Your task to perform on an android device: turn on the 24-hour format for clock Image 0: 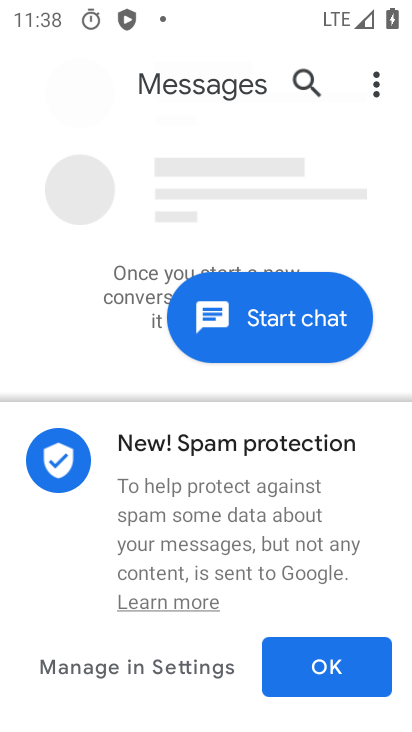
Step 0: press home button
Your task to perform on an android device: turn on the 24-hour format for clock Image 1: 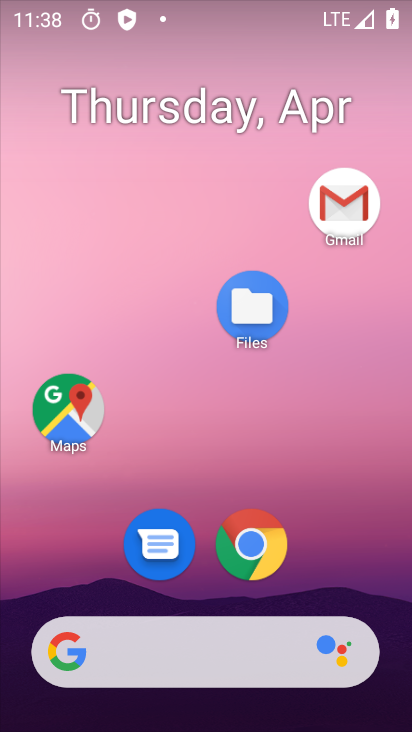
Step 1: drag from (248, 451) to (229, 118)
Your task to perform on an android device: turn on the 24-hour format for clock Image 2: 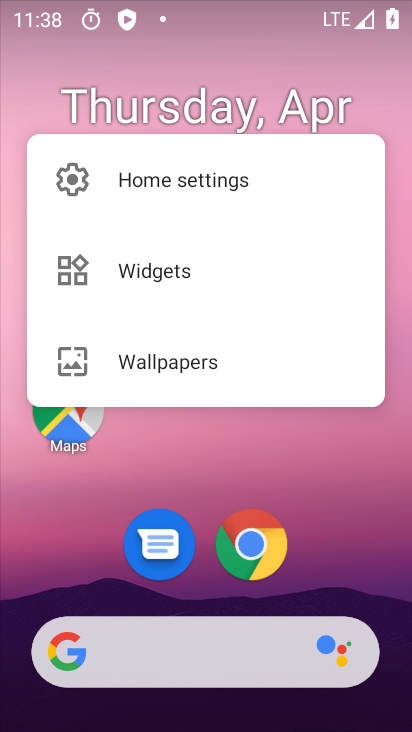
Step 2: drag from (206, 125) to (282, 470)
Your task to perform on an android device: turn on the 24-hour format for clock Image 3: 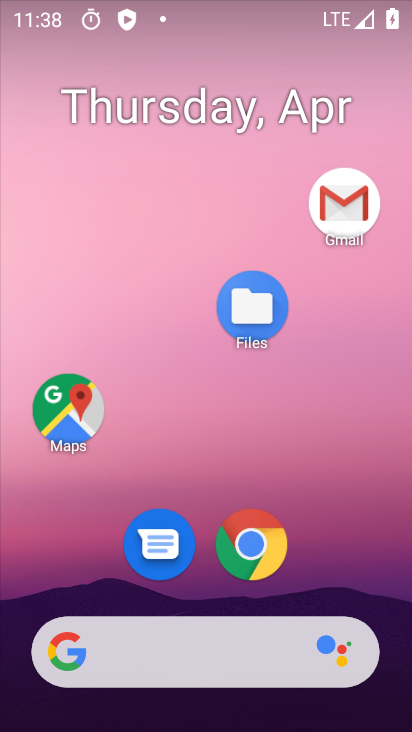
Step 3: drag from (201, 470) to (241, 63)
Your task to perform on an android device: turn on the 24-hour format for clock Image 4: 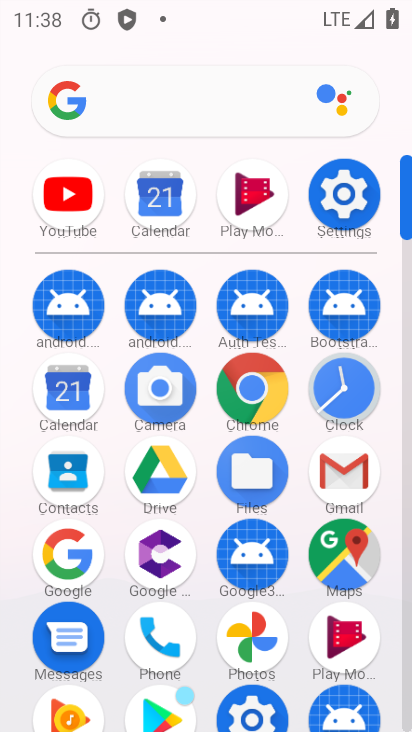
Step 4: click (357, 404)
Your task to perform on an android device: turn on the 24-hour format for clock Image 5: 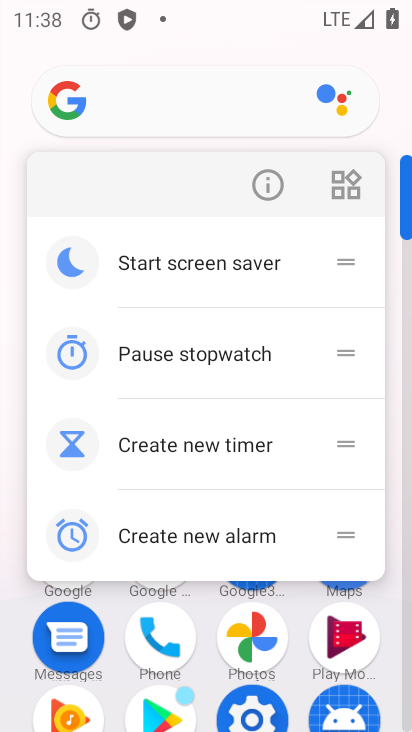
Step 5: click (280, 191)
Your task to perform on an android device: turn on the 24-hour format for clock Image 6: 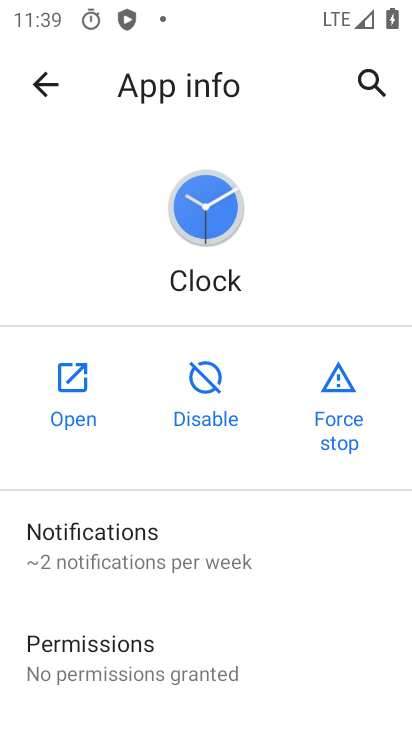
Step 6: click (59, 406)
Your task to perform on an android device: turn on the 24-hour format for clock Image 7: 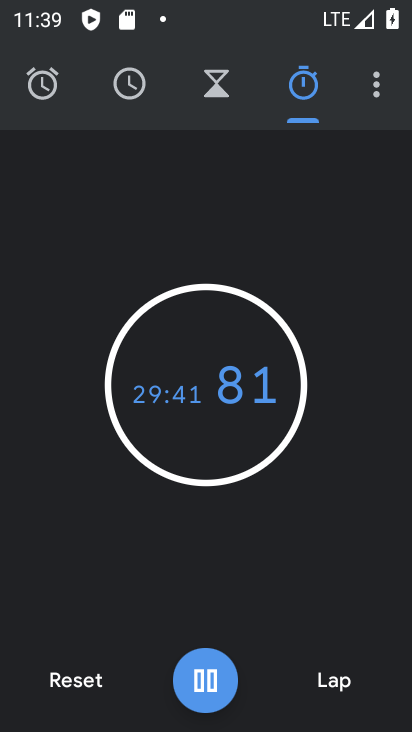
Step 7: click (370, 86)
Your task to perform on an android device: turn on the 24-hour format for clock Image 8: 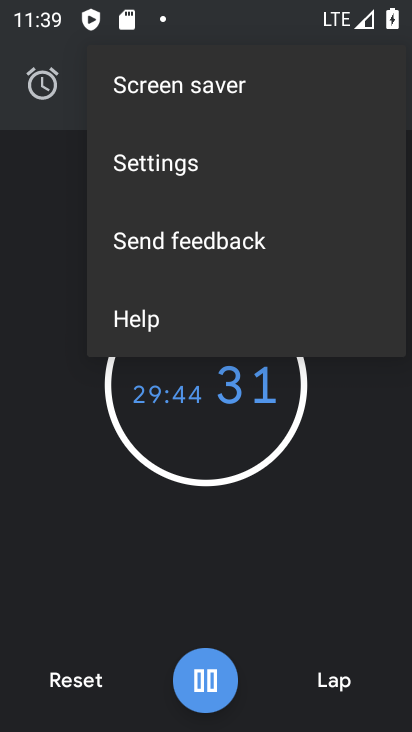
Step 8: click (197, 176)
Your task to perform on an android device: turn on the 24-hour format for clock Image 9: 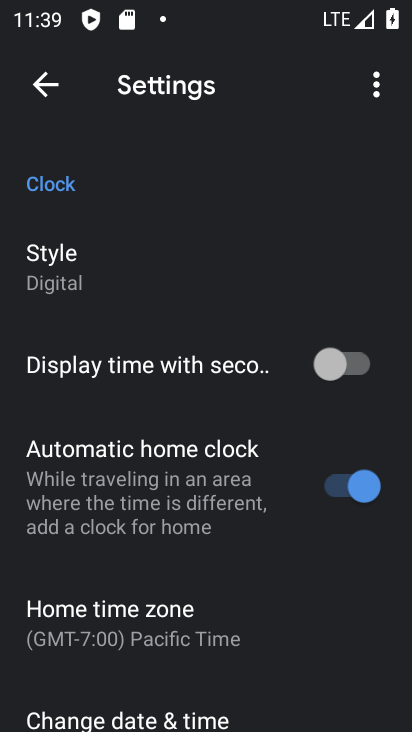
Step 9: drag from (193, 578) to (217, 327)
Your task to perform on an android device: turn on the 24-hour format for clock Image 10: 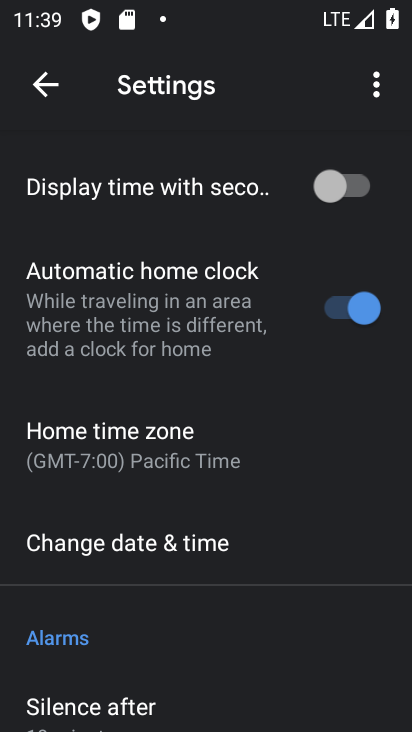
Step 10: click (186, 561)
Your task to perform on an android device: turn on the 24-hour format for clock Image 11: 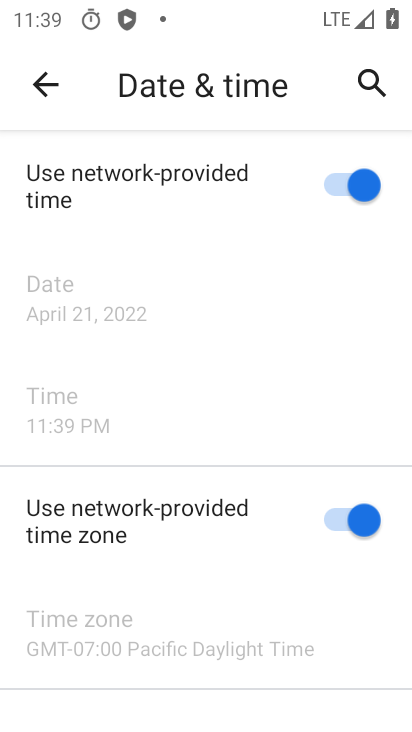
Step 11: drag from (264, 508) to (335, 157)
Your task to perform on an android device: turn on the 24-hour format for clock Image 12: 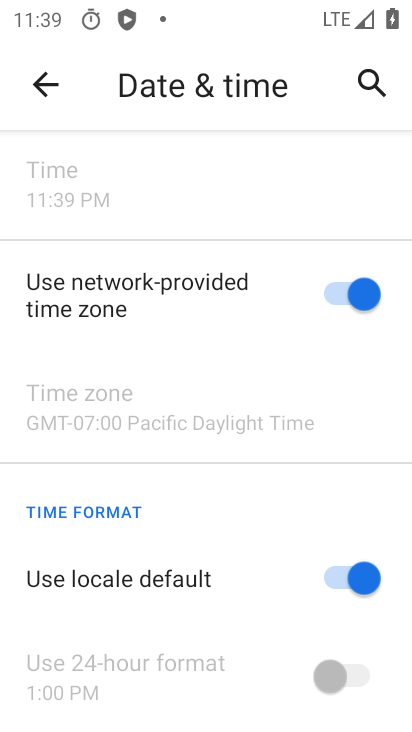
Step 12: click (338, 583)
Your task to perform on an android device: turn on the 24-hour format for clock Image 13: 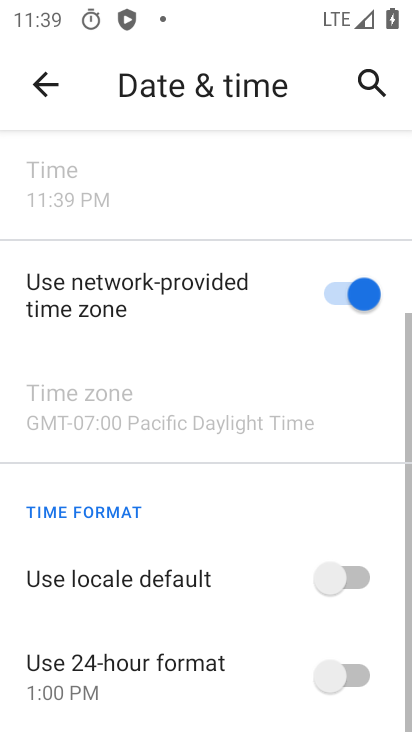
Step 13: click (329, 666)
Your task to perform on an android device: turn on the 24-hour format for clock Image 14: 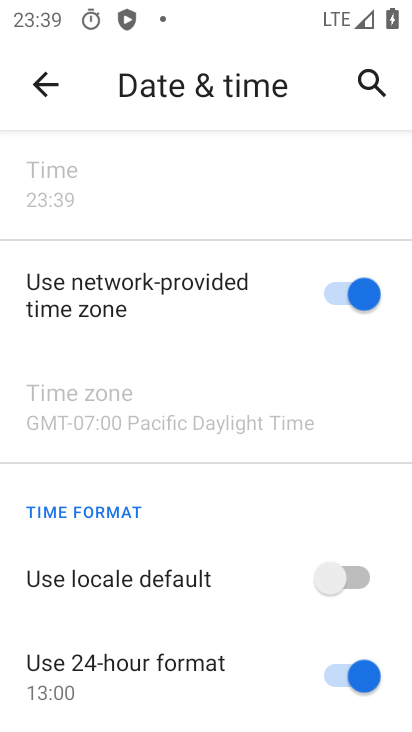
Step 14: task complete